Your task to perform on an android device: Go to calendar. Show me events next week Image 0: 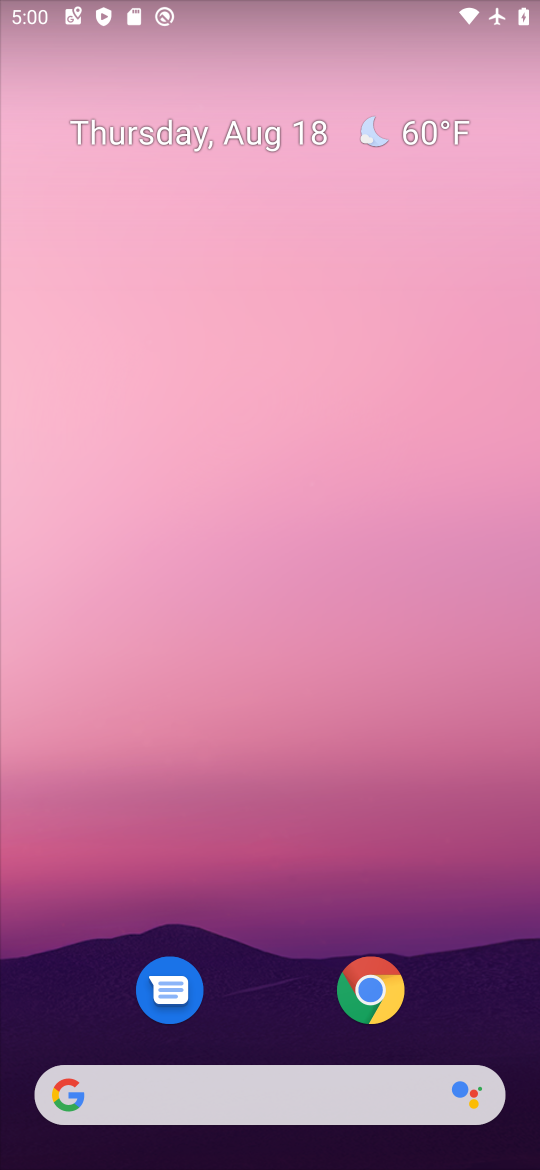
Step 0: drag from (258, 954) to (347, 0)
Your task to perform on an android device: Go to calendar. Show me events next week Image 1: 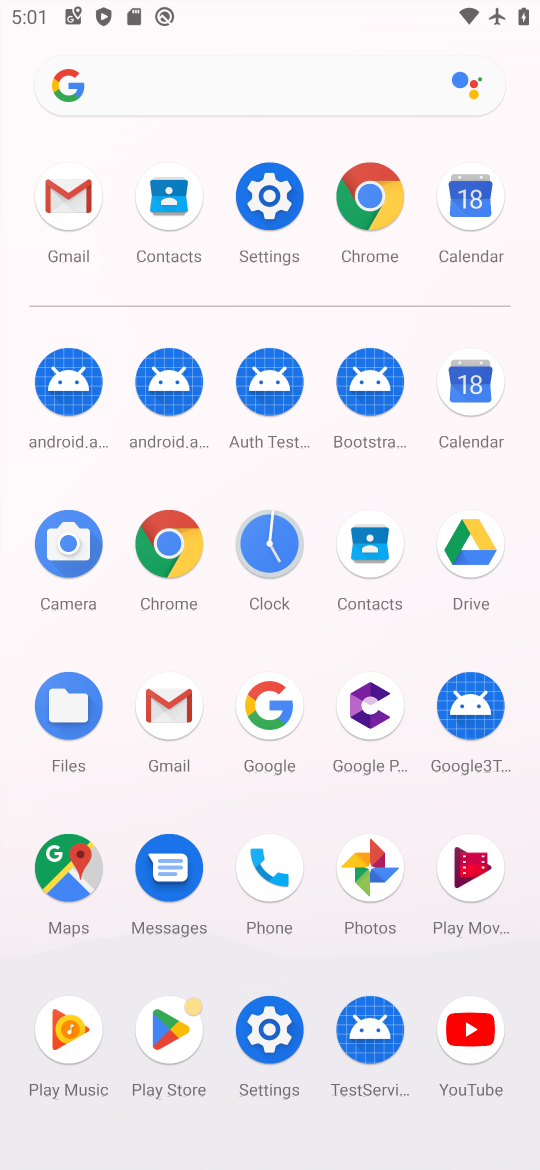
Step 1: click (486, 375)
Your task to perform on an android device: Go to calendar. Show me events next week Image 2: 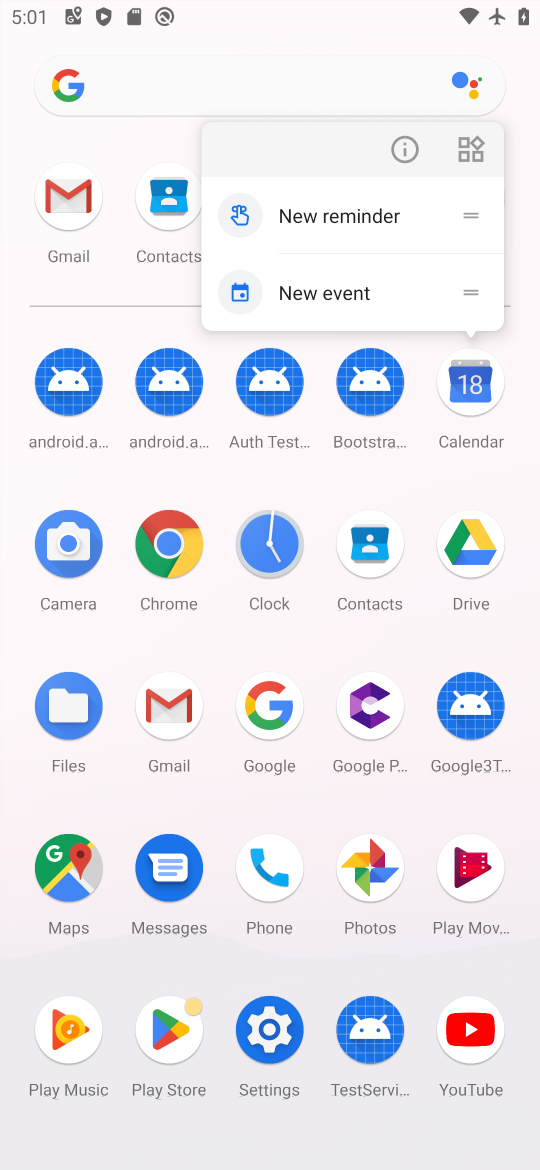
Step 2: click (474, 394)
Your task to perform on an android device: Go to calendar. Show me events next week Image 3: 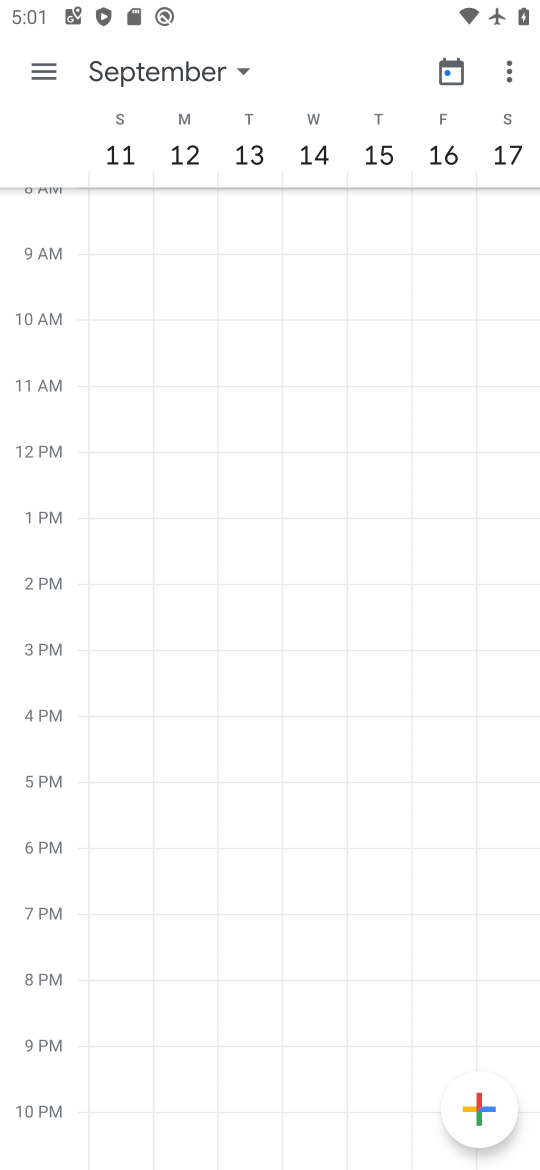
Step 3: click (176, 81)
Your task to perform on an android device: Go to calendar. Show me events next week Image 4: 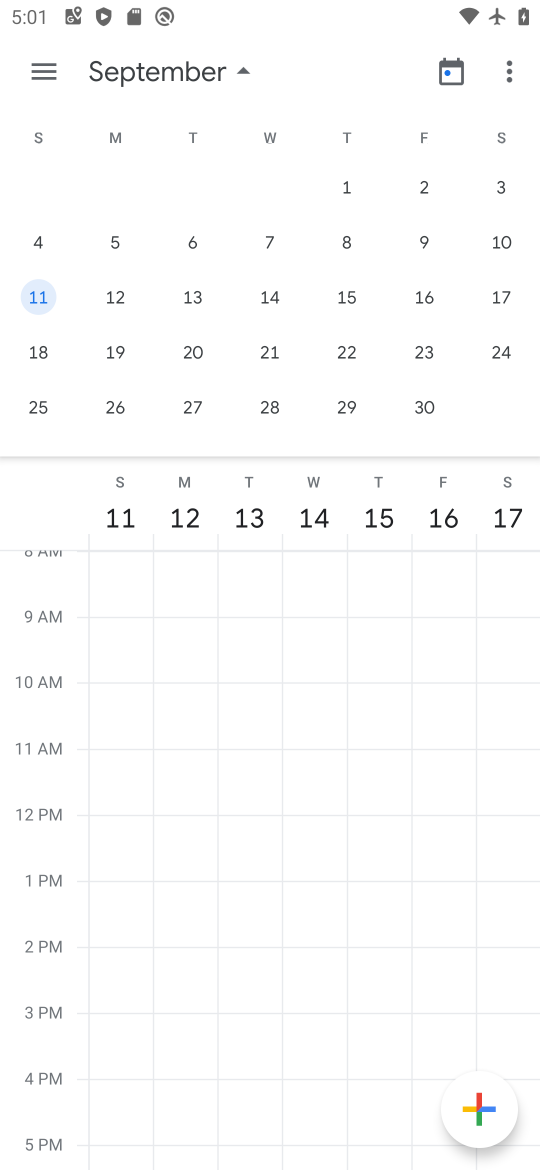
Step 4: drag from (93, 279) to (531, 287)
Your task to perform on an android device: Go to calendar. Show me events next week Image 5: 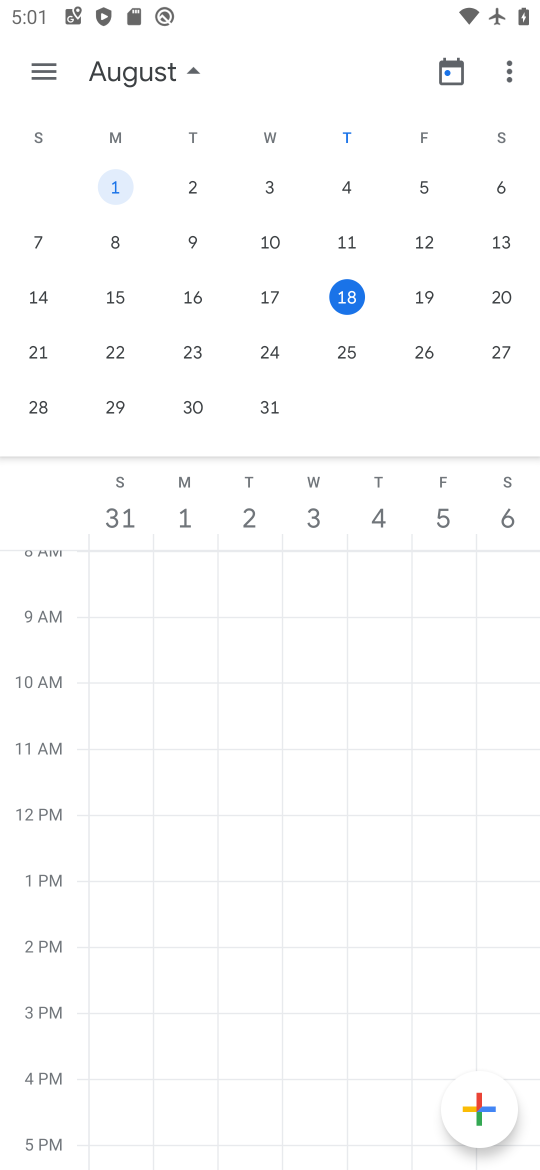
Step 5: click (260, 345)
Your task to perform on an android device: Go to calendar. Show me events next week Image 6: 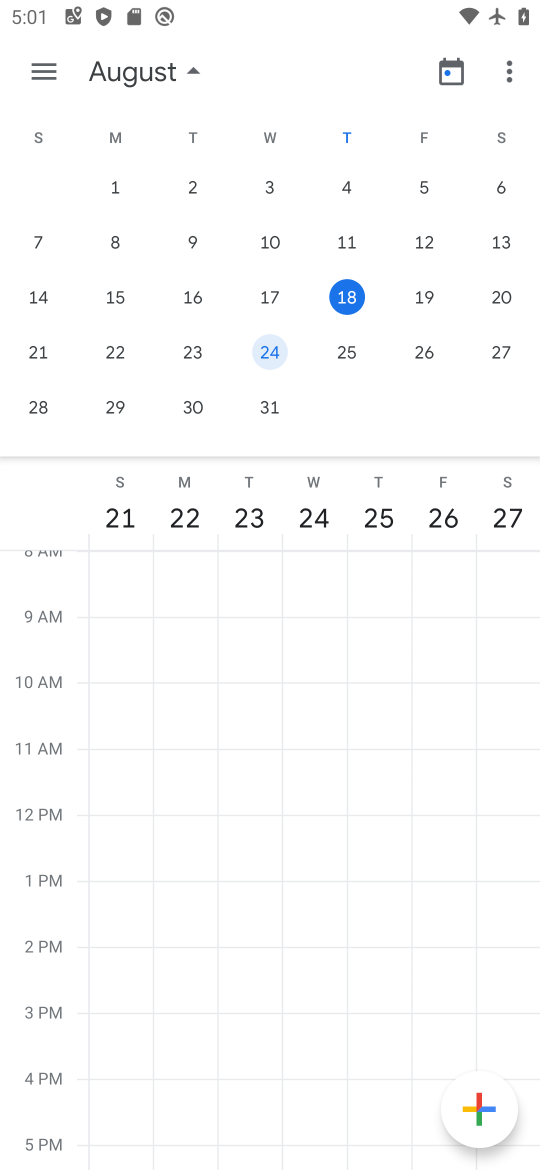
Step 6: task complete